Your task to perform on an android device: change the clock style Image 0: 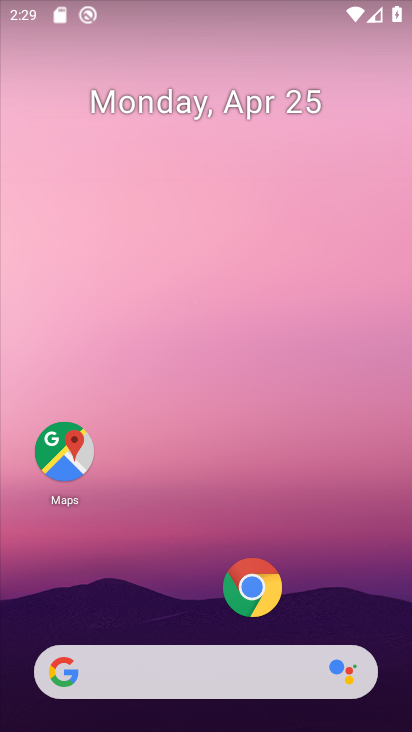
Step 0: drag from (206, 613) to (224, 14)
Your task to perform on an android device: change the clock style Image 1: 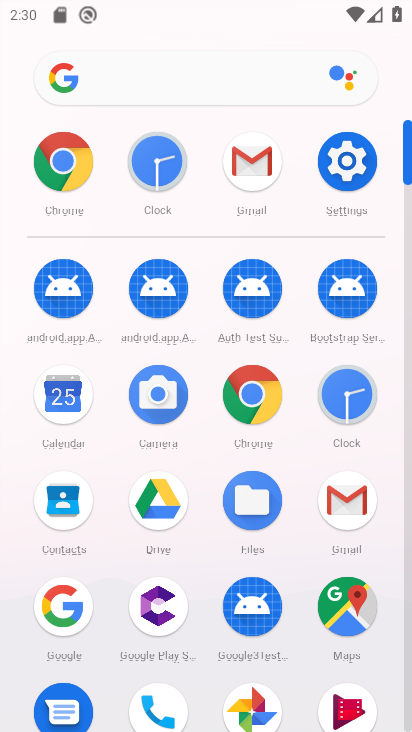
Step 1: click (343, 391)
Your task to perform on an android device: change the clock style Image 2: 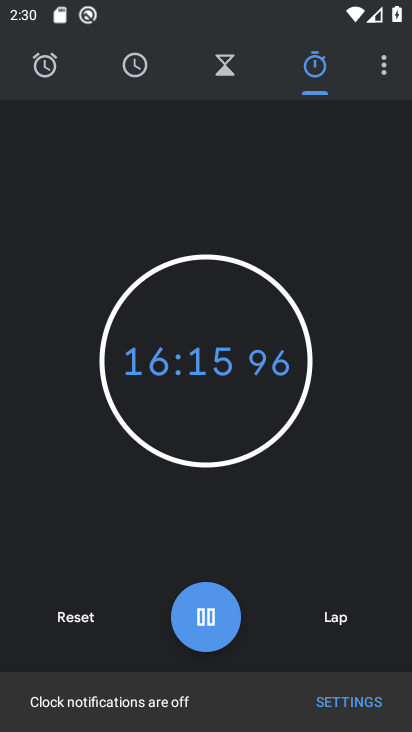
Step 2: click (75, 611)
Your task to perform on an android device: change the clock style Image 3: 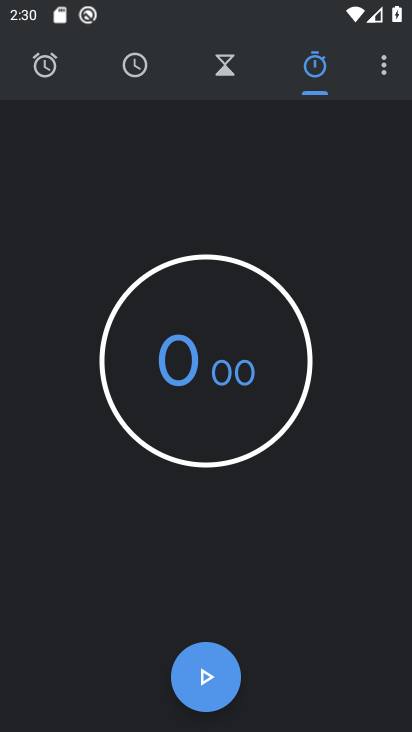
Step 3: click (380, 59)
Your task to perform on an android device: change the clock style Image 4: 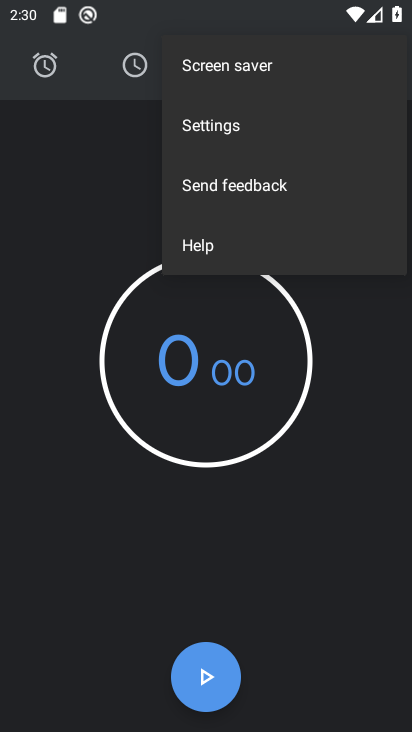
Step 4: click (256, 121)
Your task to perform on an android device: change the clock style Image 5: 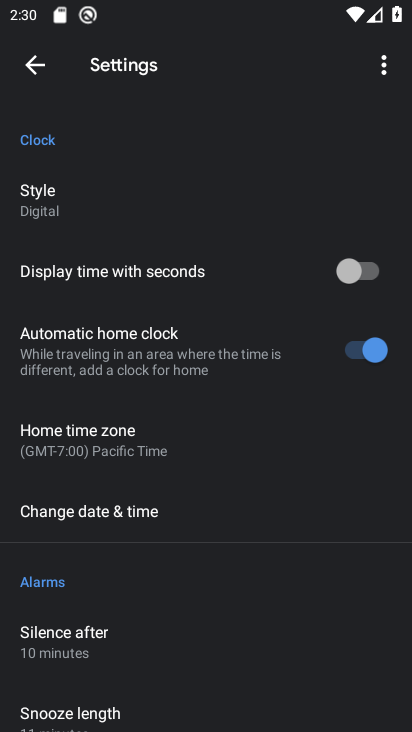
Step 5: click (70, 188)
Your task to perform on an android device: change the clock style Image 6: 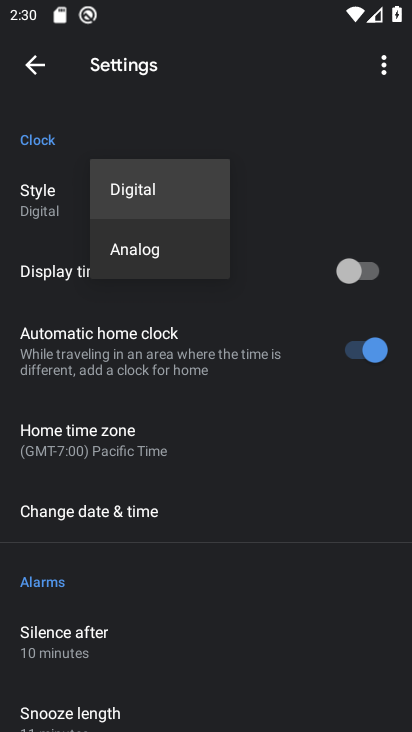
Step 6: click (173, 246)
Your task to perform on an android device: change the clock style Image 7: 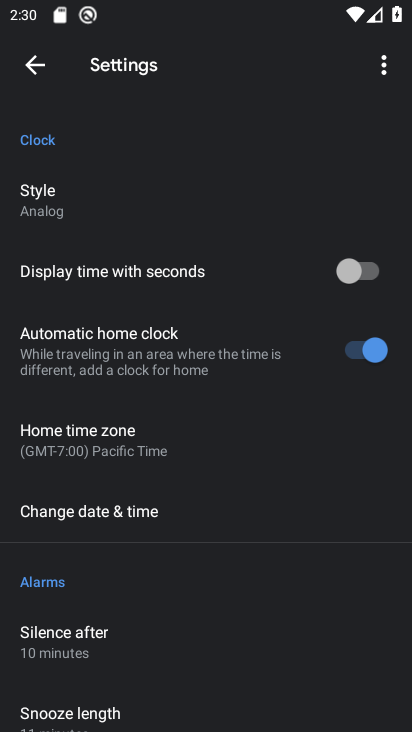
Step 7: task complete